Your task to perform on an android device: Open the phone app and click the voicemail tab. Image 0: 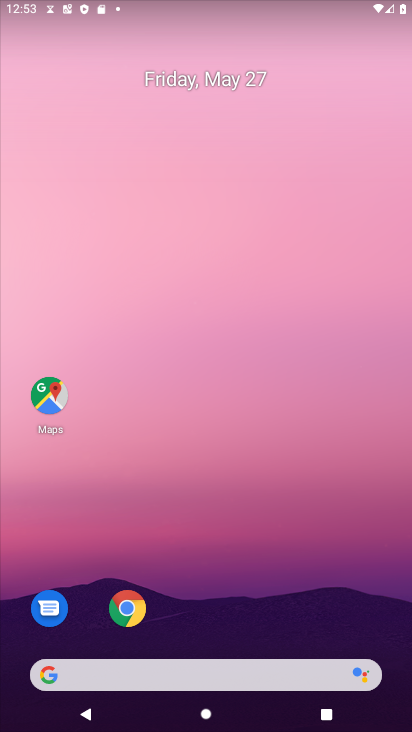
Step 0: drag from (231, 627) to (281, 109)
Your task to perform on an android device: Open the phone app and click the voicemail tab. Image 1: 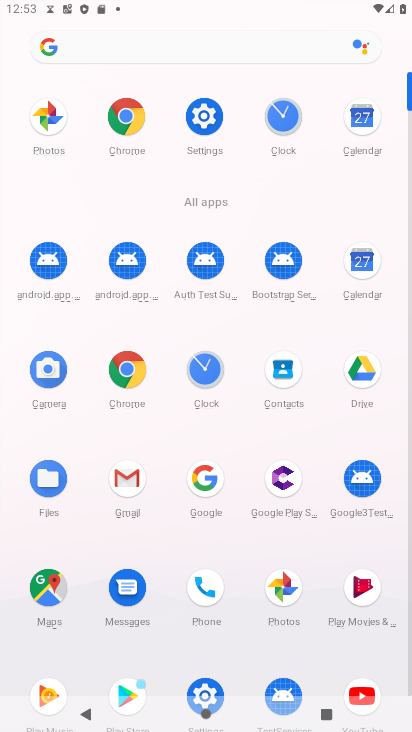
Step 1: click (199, 585)
Your task to perform on an android device: Open the phone app and click the voicemail tab. Image 2: 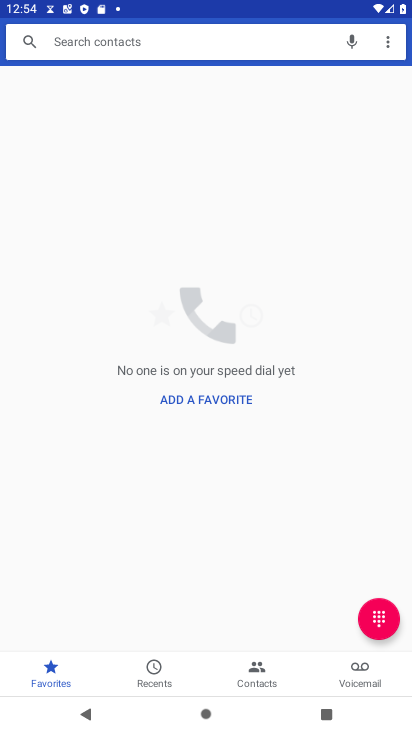
Step 2: click (353, 680)
Your task to perform on an android device: Open the phone app and click the voicemail tab. Image 3: 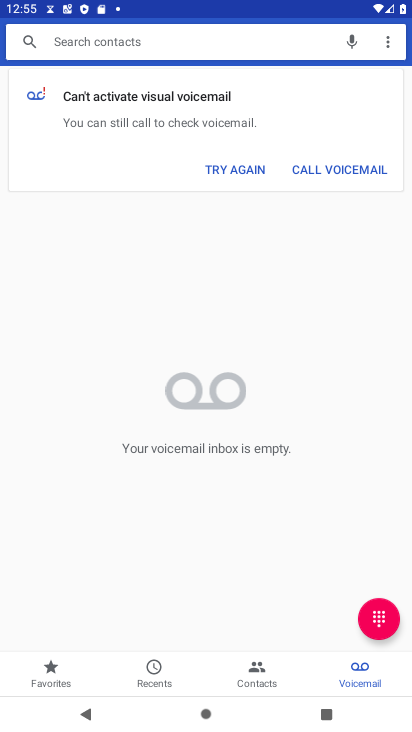
Step 3: click (361, 675)
Your task to perform on an android device: Open the phone app and click the voicemail tab. Image 4: 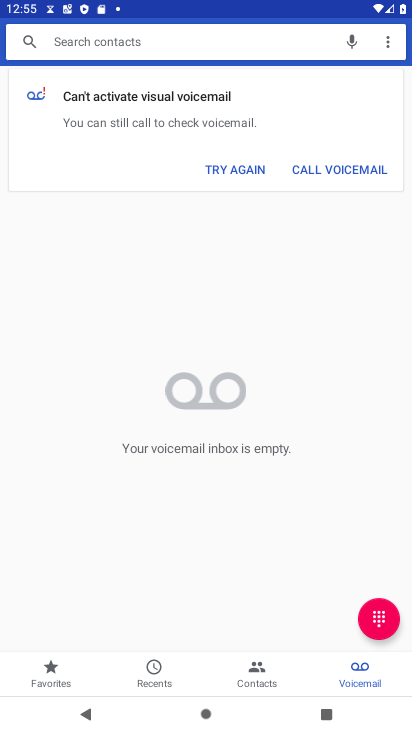
Step 4: task complete